Your task to perform on an android device: change the upload size in google photos Image 0: 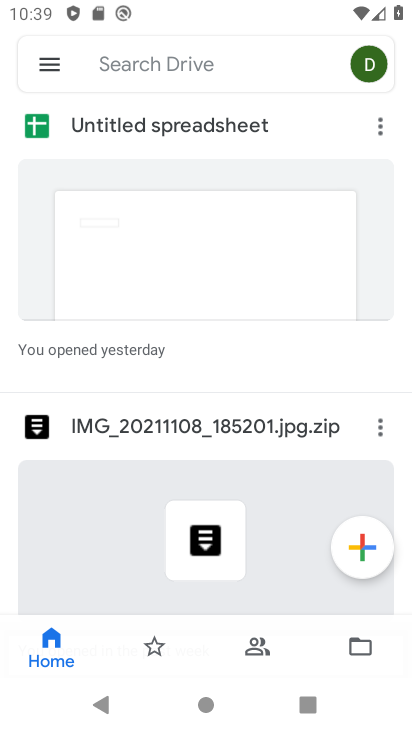
Step 0: press home button
Your task to perform on an android device: change the upload size in google photos Image 1: 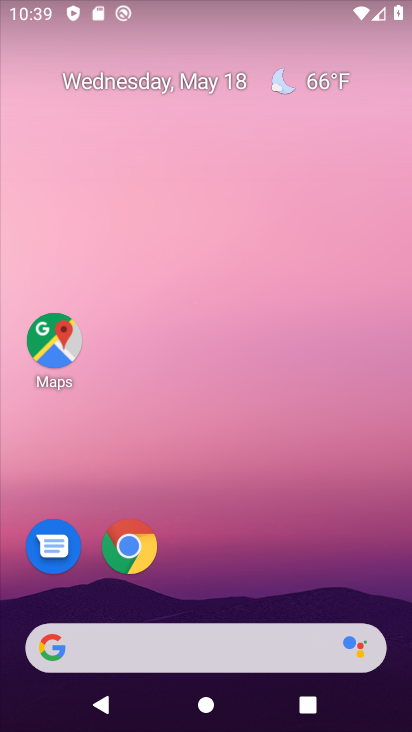
Step 1: drag from (183, 727) to (218, 267)
Your task to perform on an android device: change the upload size in google photos Image 2: 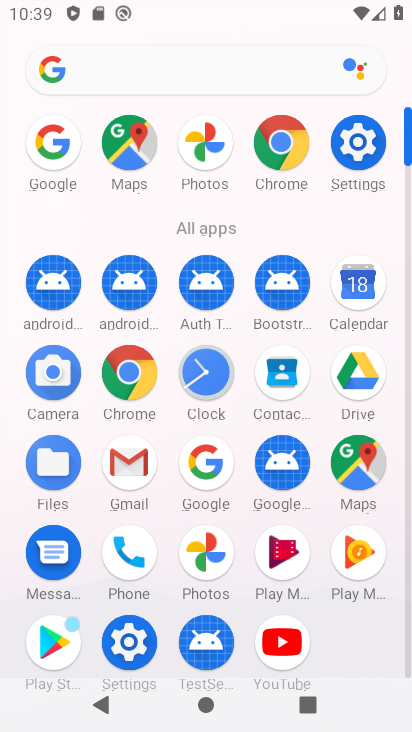
Step 2: click (202, 551)
Your task to perform on an android device: change the upload size in google photos Image 3: 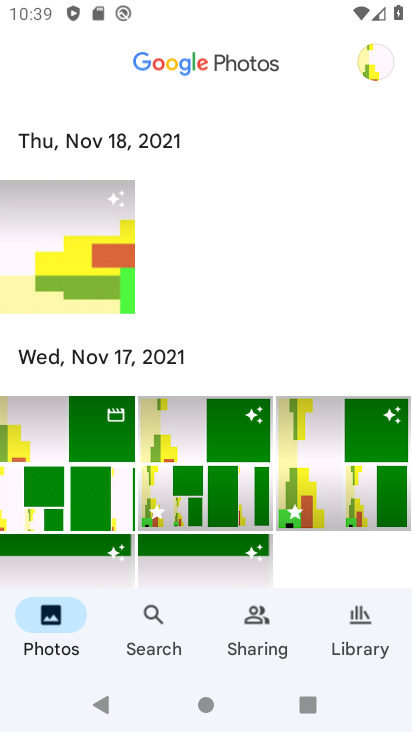
Step 3: click (373, 60)
Your task to perform on an android device: change the upload size in google photos Image 4: 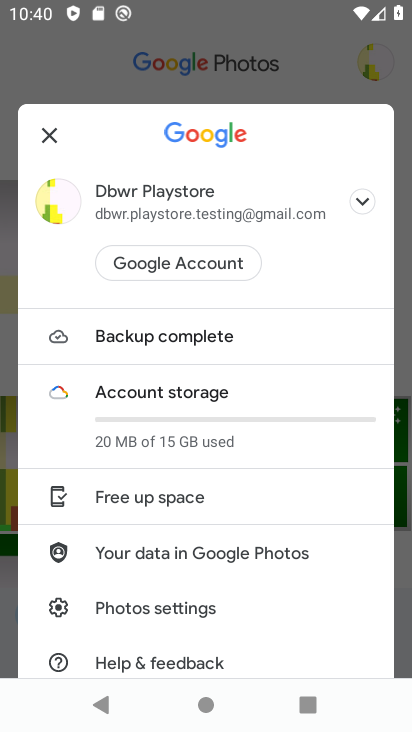
Step 4: drag from (169, 625) to (195, 278)
Your task to perform on an android device: change the upload size in google photos Image 5: 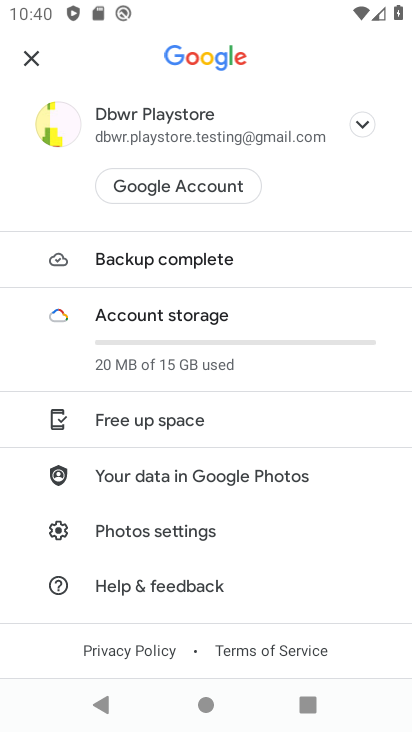
Step 5: click (167, 532)
Your task to perform on an android device: change the upload size in google photos Image 6: 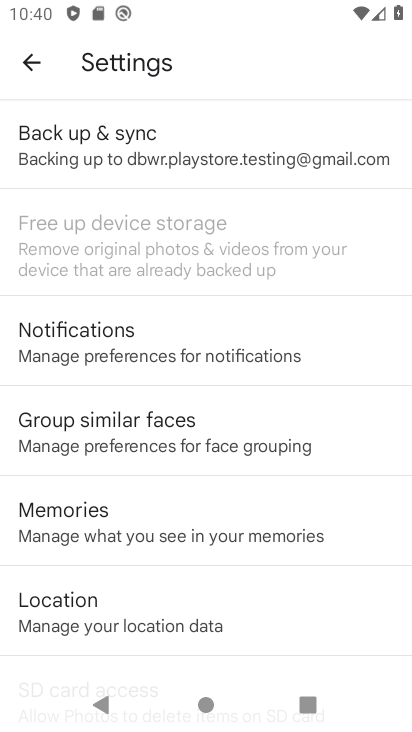
Step 6: click (89, 153)
Your task to perform on an android device: change the upload size in google photos Image 7: 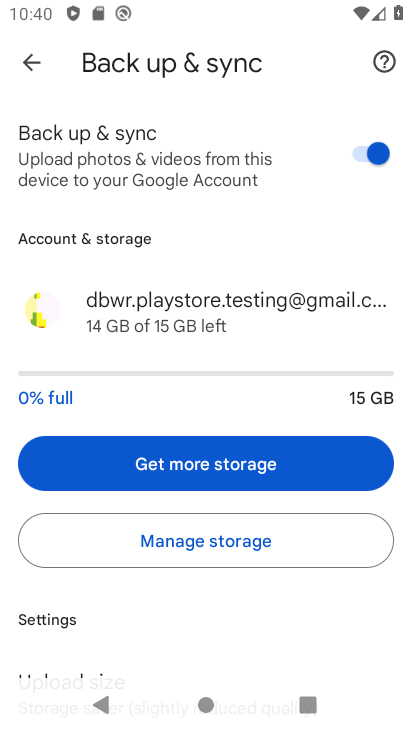
Step 7: drag from (150, 646) to (151, 292)
Your task to perform on an android device: change the upload size in google photos Image 8: 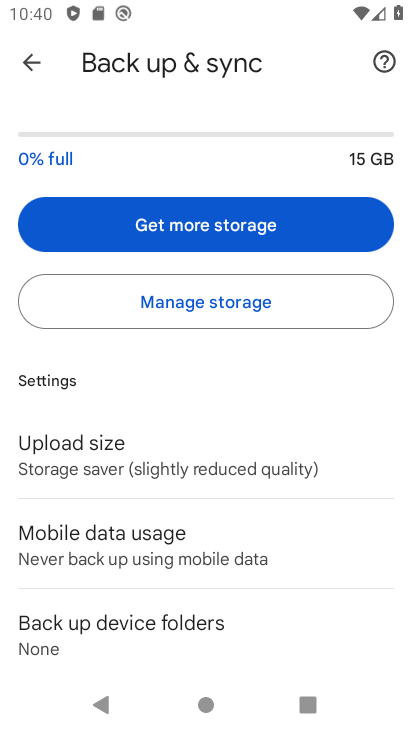
Step 8: click (85, 459)
Your task to perform on an android device: change the upload size in google photos Image 9: 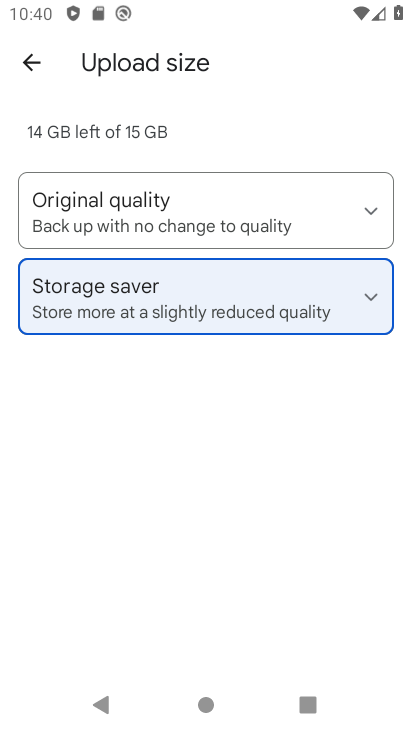
Step 9: click (162, 212)
Your task to perform on an android device: change the upload size in google photos Image 10: 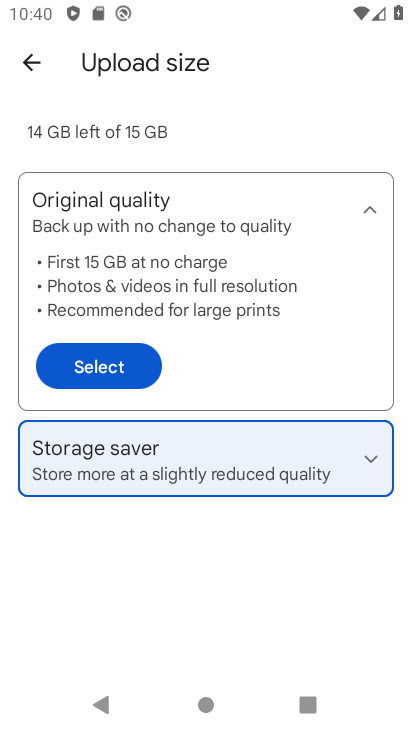
Step 10: click (99, 362)
Your task to perform on an android device: change the upload size in google photos Image 11: 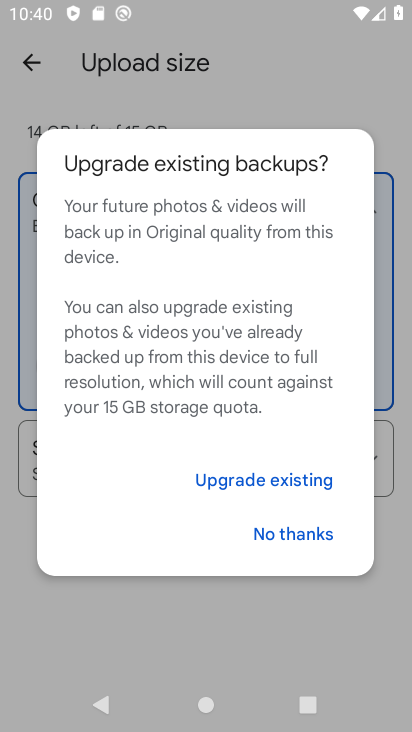
Step 11: click (283, 530)
Your task to perform on an android device: change the upload size in google photos Image 12: 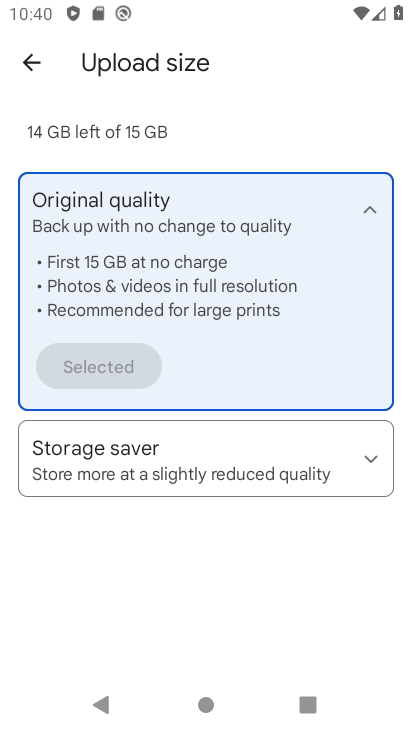
Step 12: task complete